Your task to perform on an android device: toggle improve location accuracy Image 0: 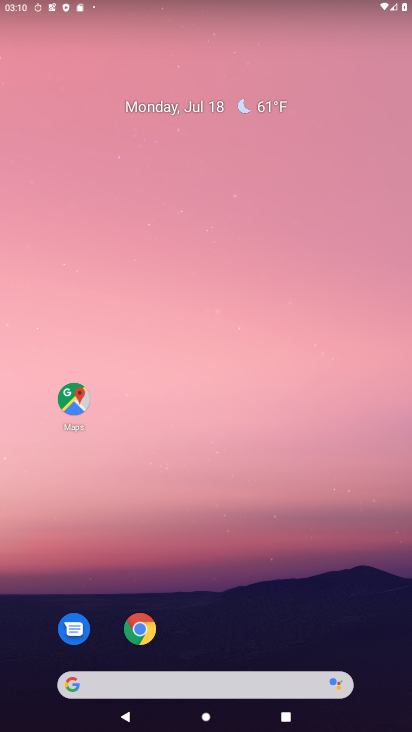
Step 0: drag from (179, 680) to (248, 95)
Your task to perform on an android device: toggle improve location accuracy Image 1: 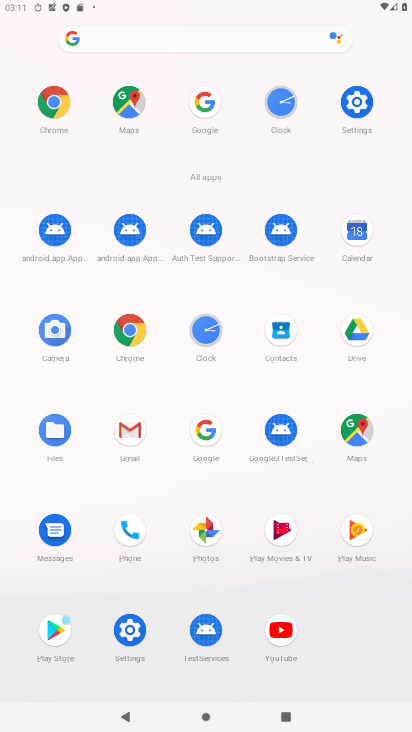
Step 1: click (358, 102)
Your task to perform on an android device: toggle improve location accuracy Image 2: 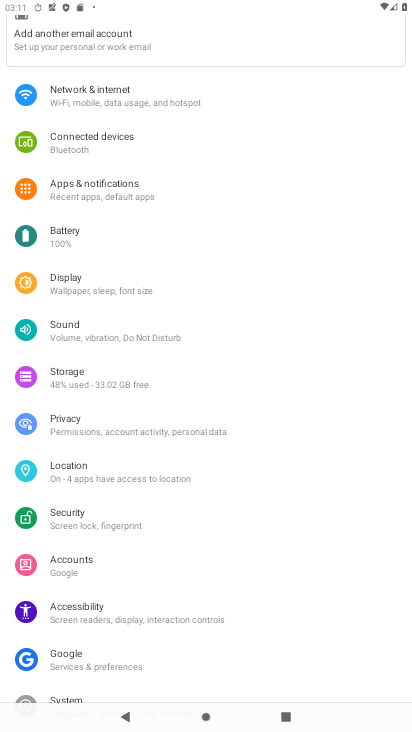
Step 2: click (94, 477)
Your task to perform on an android device: toggle improve location accuracy Image 3: 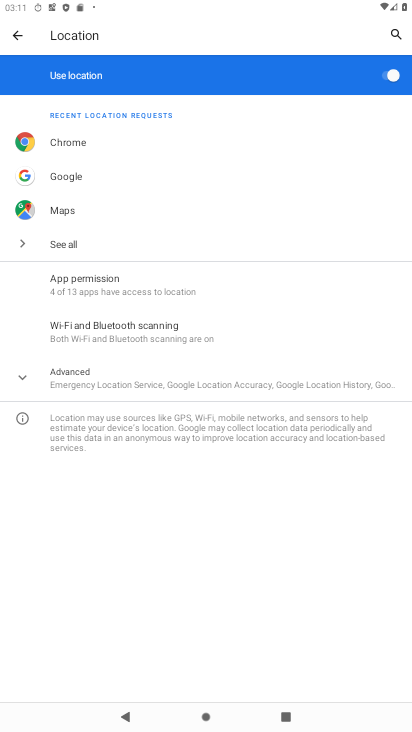
Step 3: click (118, 383)
Your task to perform on an android device: toggle improve location accuracy Image 4: 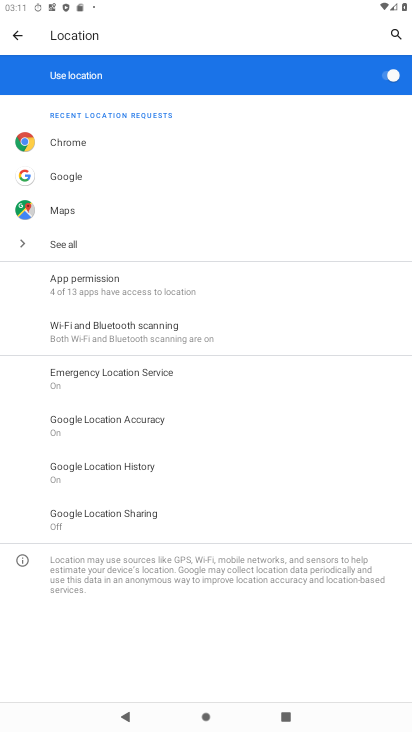
Step 4: click (121, 426)
Your task to perform on an android device: toggle improve location accuracy Image 5: 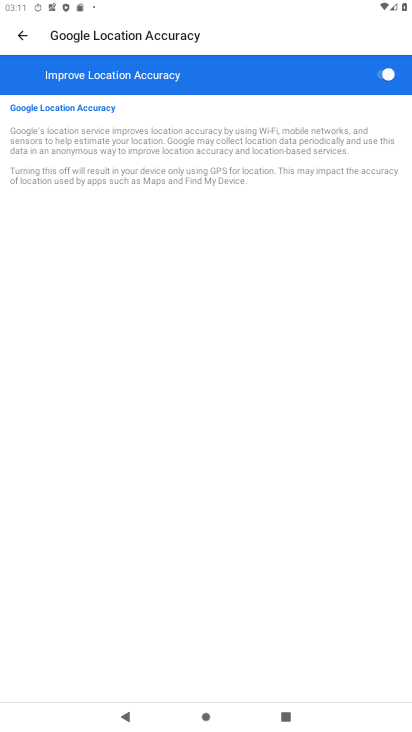
Step 5: click (381, 74)
Your task to perform on an android device: toggle improve location accuracy Image 6: 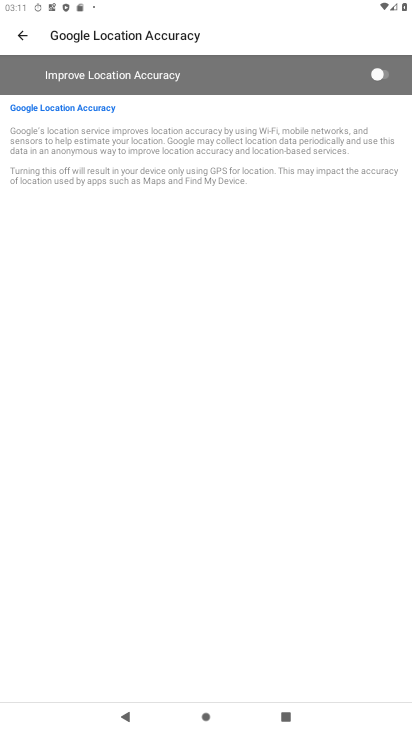
Step 6: task complete